Your task to perform on an android device: find snoozed emails in the gmail app Image 0: 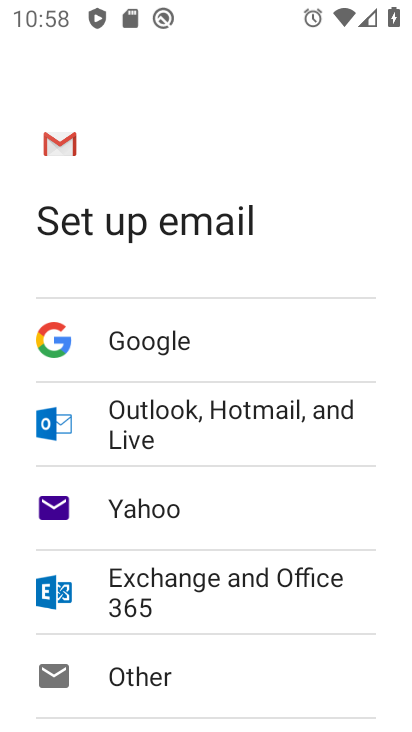
Step 0: press home button
Your task to perform on an android device: find snoozed emails in the gmail app Image 1: 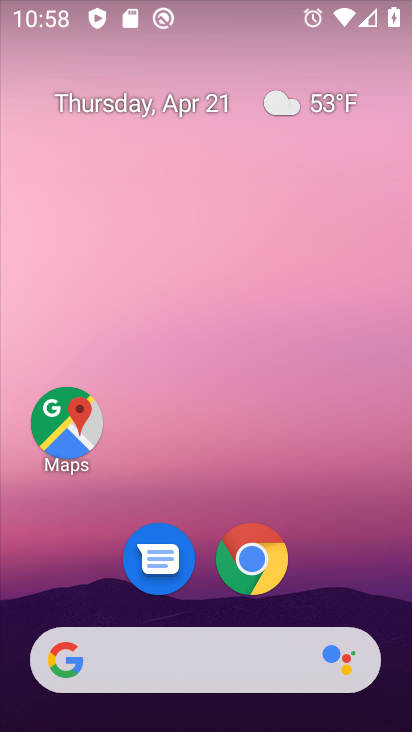
Step 1: drag from (250, 661) to (254, 160)
Your task to perform on an android device: find snoozed emails in the gmail app Image 2: 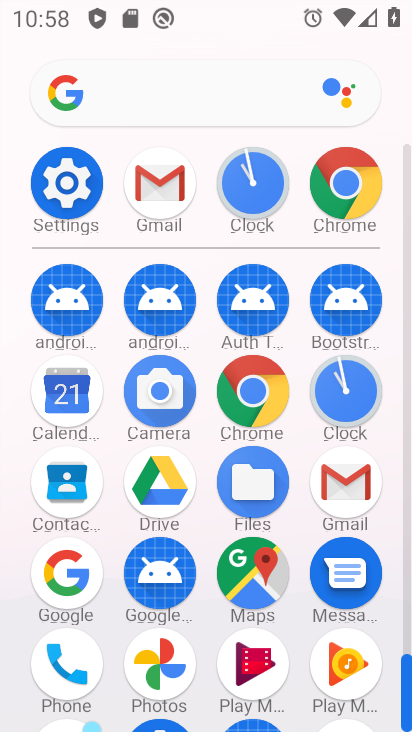
Step 2: click (337, 478)
Your task to perform on an android device: find snoozed emails in the gmail app Image 3: 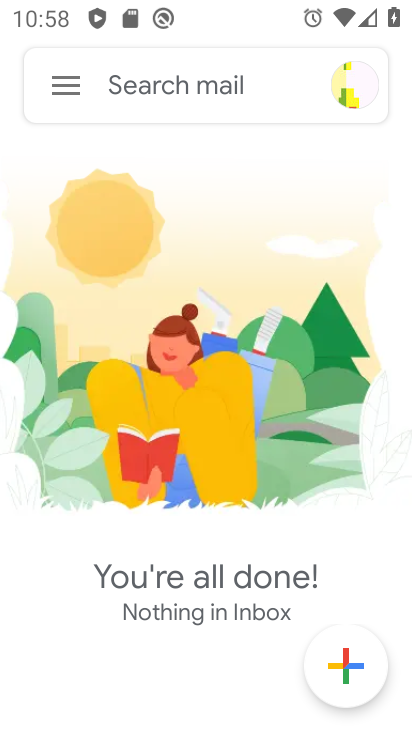
Step 3: click (58, 85)
Your task to perform on an android device: find snoozed emails in the gmail app Image 4: 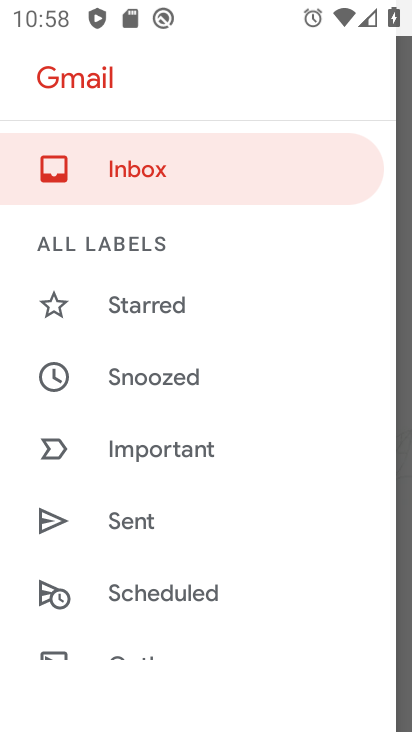
Step 4: click (125, 368)
Your task to perform on an android device: find snoozed emails in the gmail app Image 5: 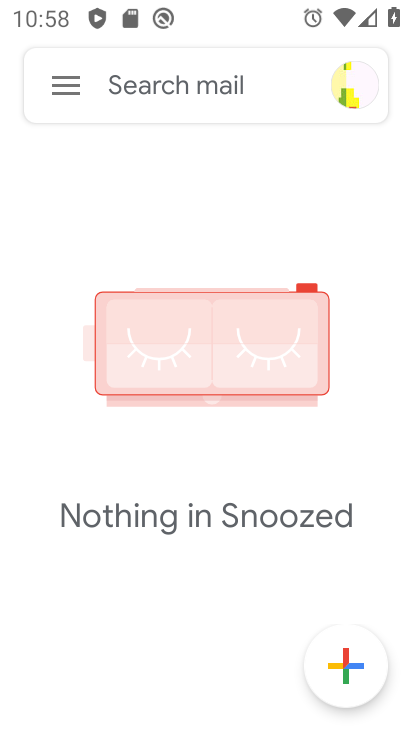
Step 5: task complete